Your task to perform on an android device: turn on data saver in the chrome app Image 0: 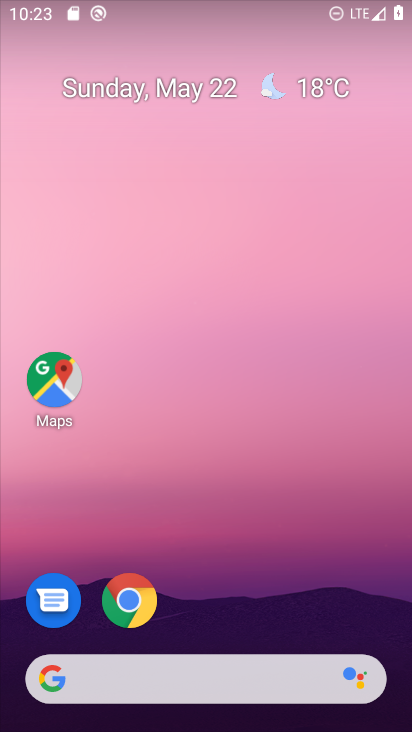
Step 0: drag from (349, 621) to (329, 30)
Your task to perform on an android device: turn on data saver in the chrome app Image 1: 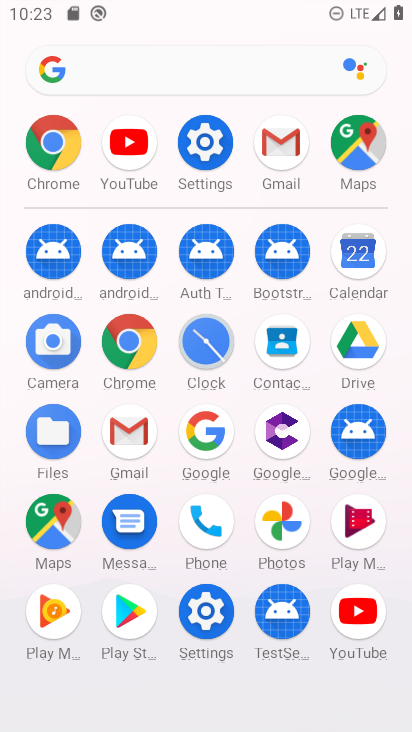
Step 1: click (147, 337)
Your task to perform on an android device: turn on data saver in the chrome app Image 2: 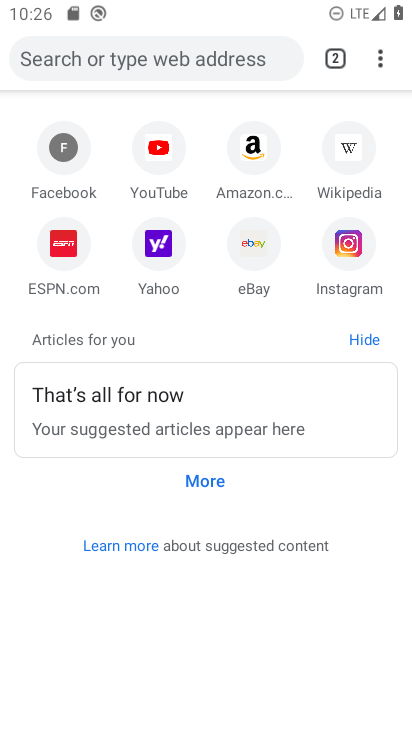
Step 2: click (382, 48)
Your task to perform on an android device: turn on data saver in the chrome app Image 3: 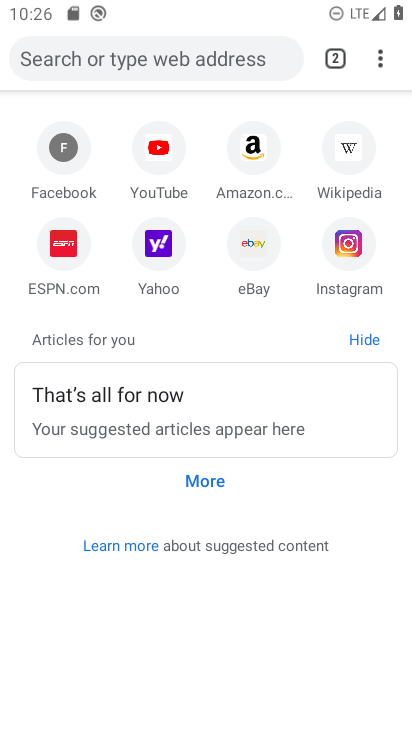
Step 3: click (374, 52)
Your task to perform on an android device: turn on data saver in the chrome app Image 4: 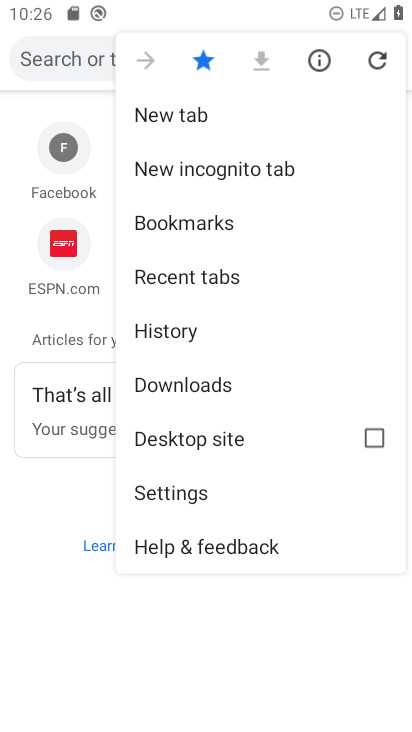
Step 4: click (254, 502)
Your task to perform on an android device: turn on data saver in the chrome app Image 5: 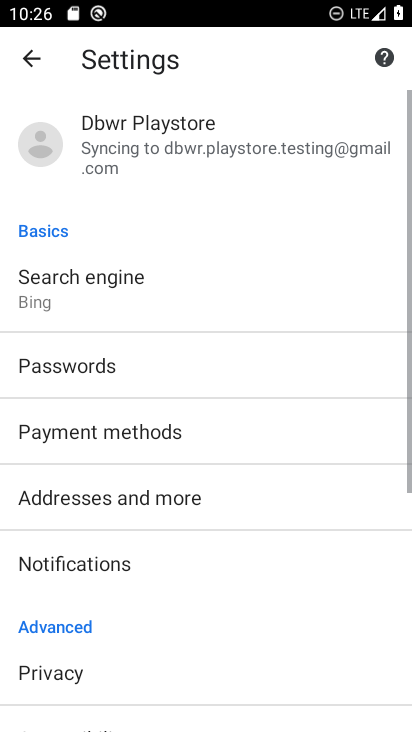
Step 5: drag from (168, 672) to (189, 121)
Your task to perform on an android device: turn on data saver in the chrome app Image 6: 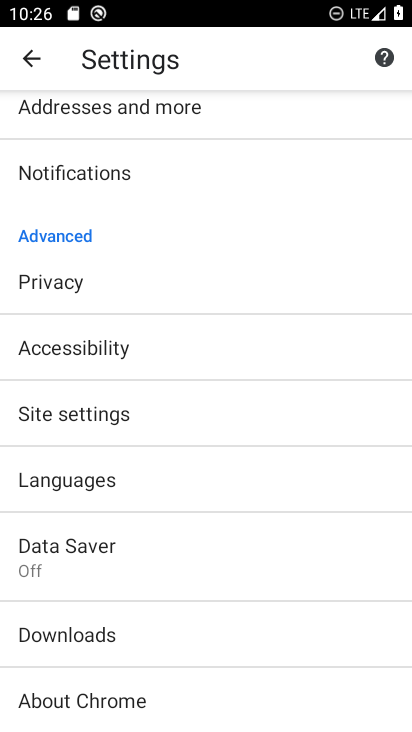
Step 6: click (152, 556)
Your task to perform on an android device: turn on data saver in the chrome app Image 7: 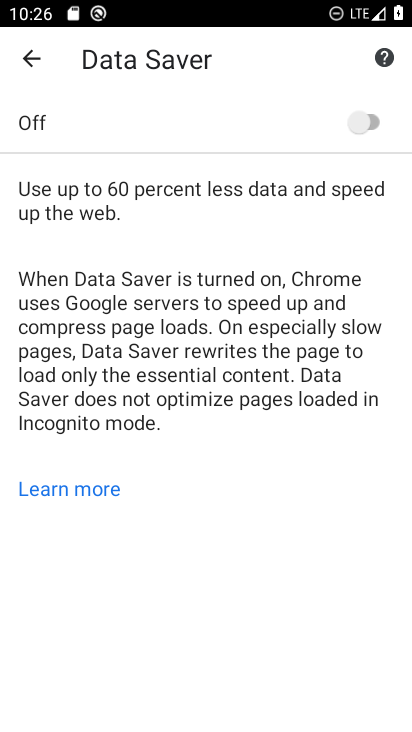
Step 7: click (395, 109)
Your task to perform on an android device: turn on data saver in the chrome app Image 8: 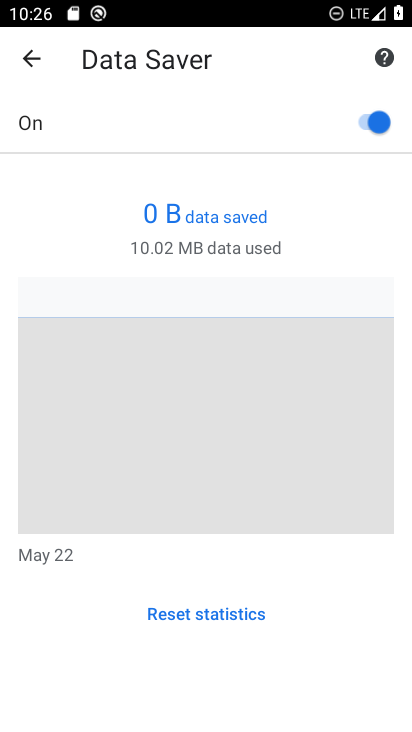
Step 8: task complete